Your task to perform on an android device: turn pop-ups off in chrome Image 0: 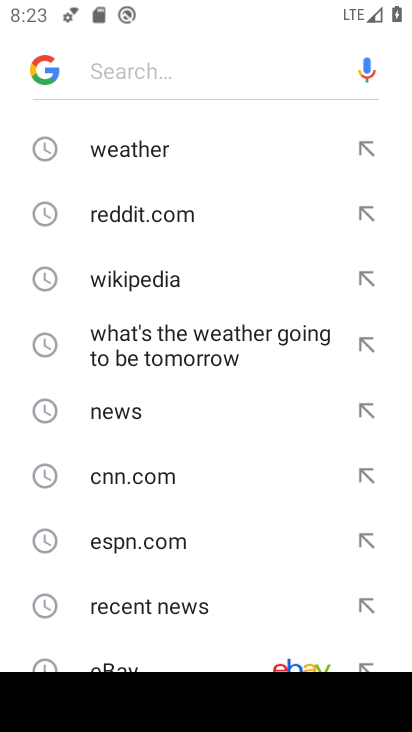
Step 0: press home button
Your task to perform on an android device: turn pop-ups off in chrome Image 1: 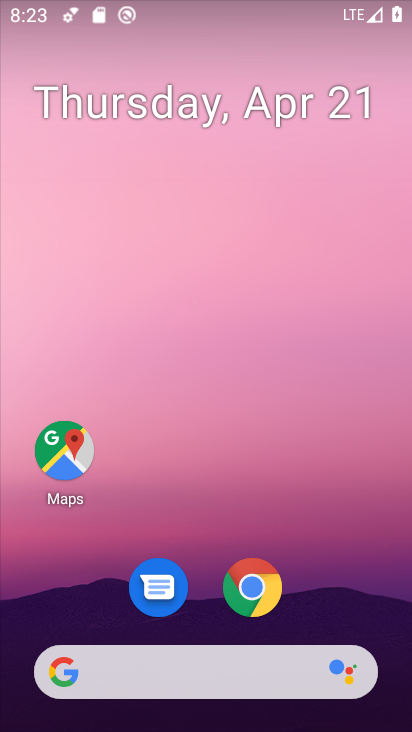
Step 1: click (254, 580)
Your task to perform on an android device: turn pop-ups off in chrome Image 2: 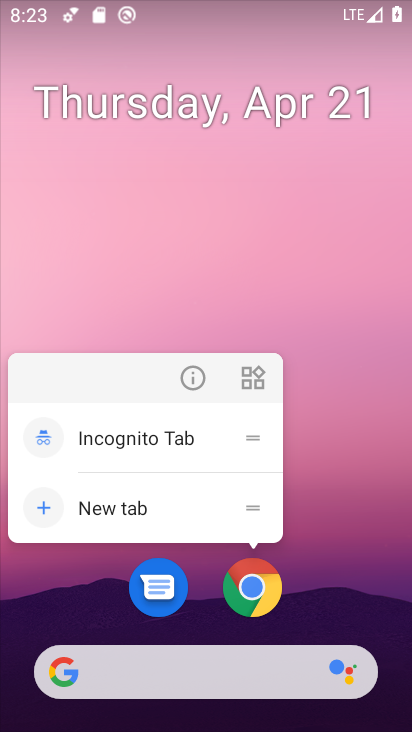
Step 2: click (254, 580)
Your task to perform on an android device: turn pop-ups off in chrome Image 3: 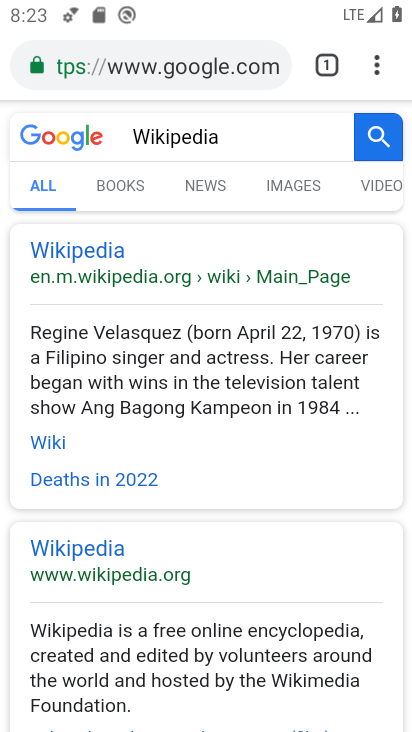
Step 3: click (371, 60)
Your task to perform on an android device: turn pop-ups off in chrome Image 4: 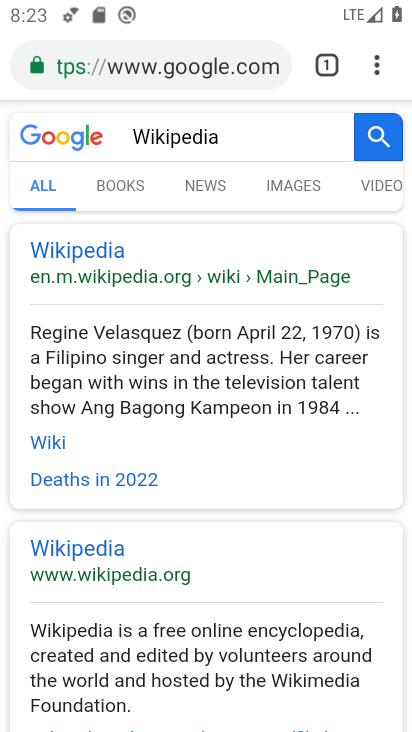
Step 4: click (374, 57)
Your task to perform on an android device: turn pop-ups off in chrome Image 5: 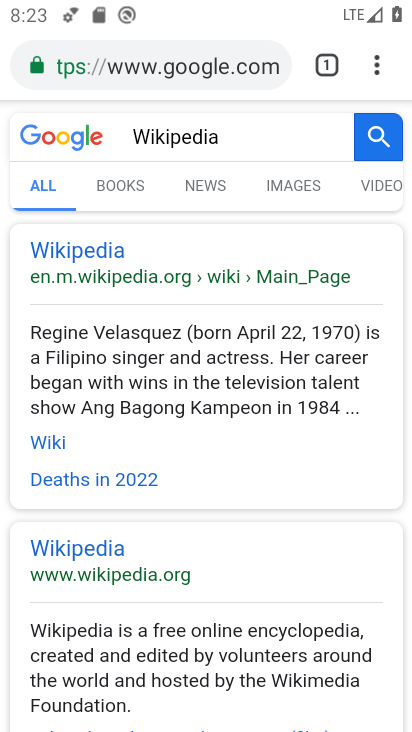
Step 5: click (374, 57)
Your task to perform on an android device: turn pop-ups off in chrome Image 6: 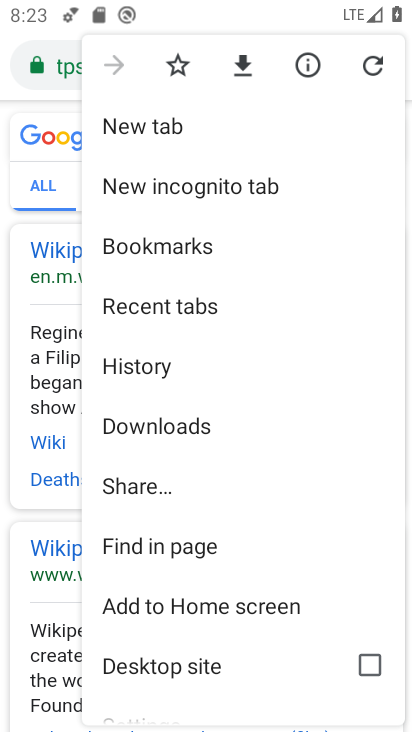
Step 6: drag from (300, 425) to (292, 232)
Your task to perform on an android device: turn pop-ups off in chrome Image 7: 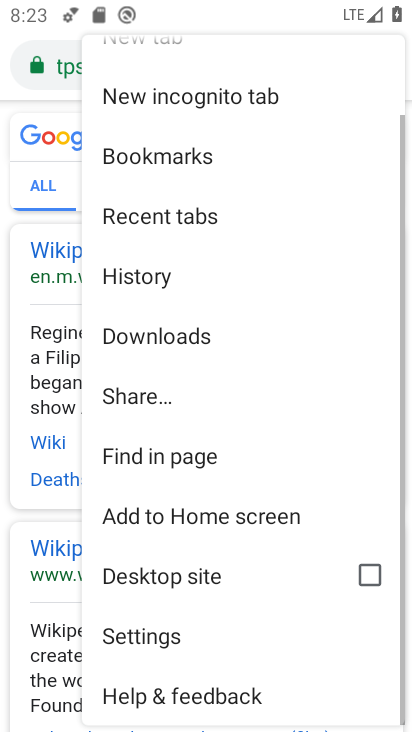
Step 7: click (139, 633)
Your task to perform on an android device: turn pop-ups off in chrome Image 8: 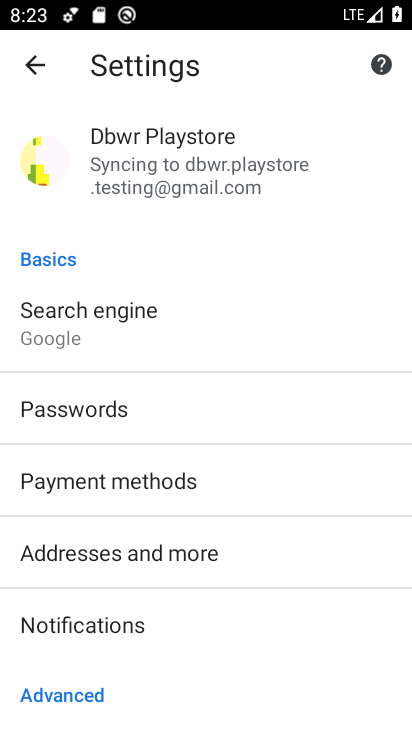
Step 8: drag from (248, 669) to (263, 313)
Your task to perform on an android device: turn pop-ups off in chrome Image 9: 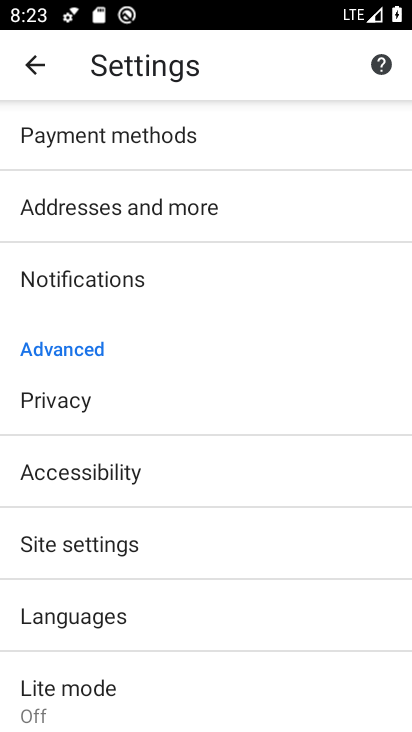
Step 9: drag from (318, 411) to (319, 290)
Your task to perform on an android device: turn pop-ups off in chrome Image 10: 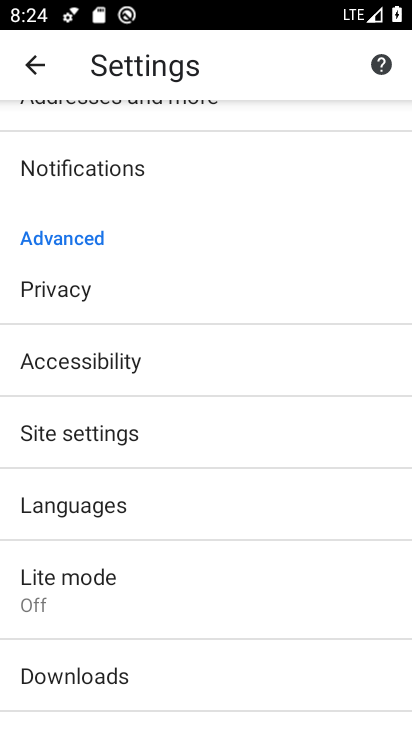
Step 10: click (97, 430)
Your task to perform on an android device: turn pop-ups off in chrome Image 11: 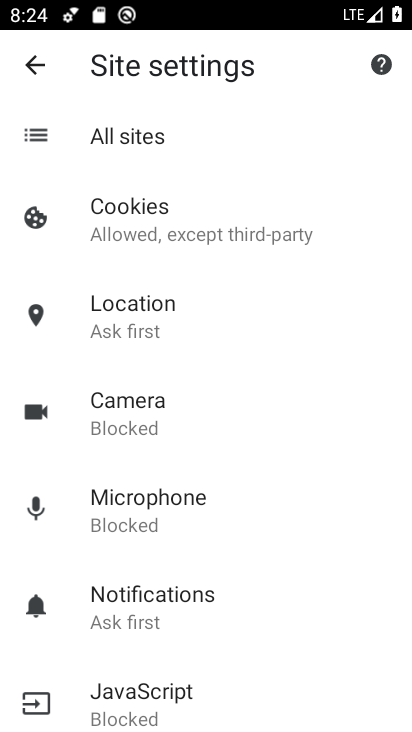
Step 11: drag from (306, 685) to (264, 390)
Your task to perform on an android device: turn pop-ups off in chrome Image 12: 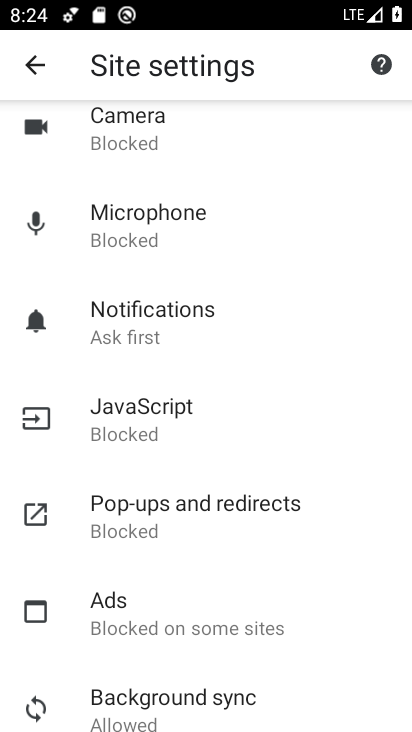
Step 12: click (124, 509)
Your task to perform on an android device: turn pop-ups off in chrome Image 13: 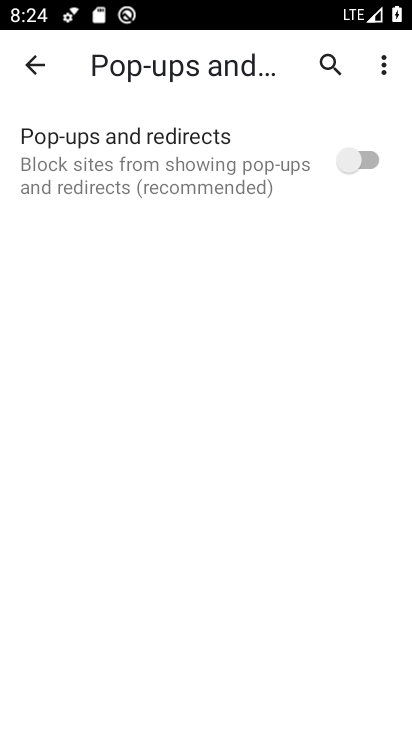
Step 13: task complete